Your task to perform on an android device: Open Android settings Image 0: 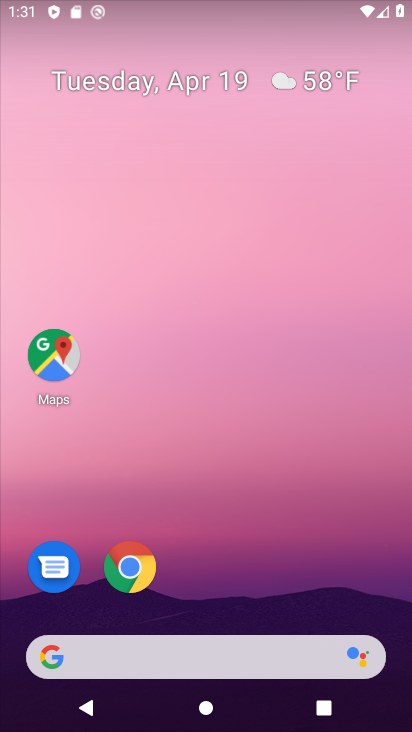
Step 0: drag from (395, 643) to (319, 99)
Your task to perform on an android device: Open Android settings Image 1: 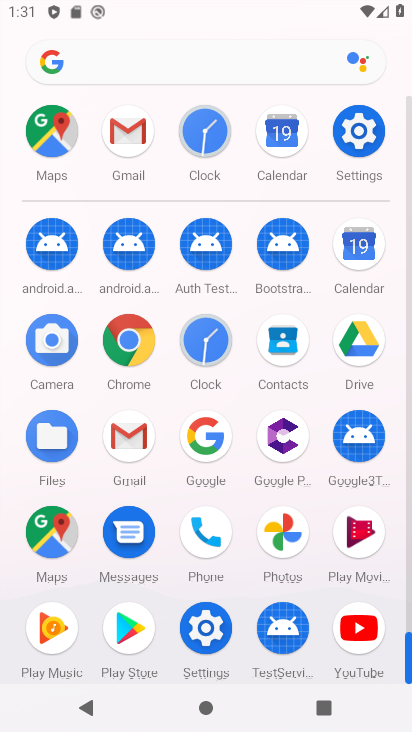
Step 1: click (202, 624)
Your task to perform on an android device: Open Android settings Image 2: 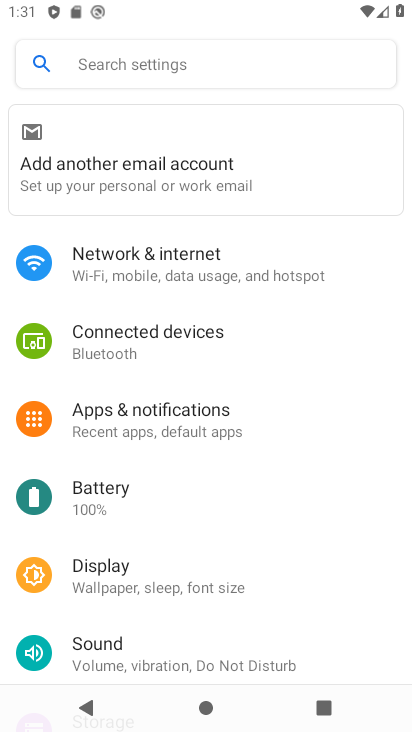
Step 2: drag from (296, 591) to (331, 288)
Your task to perform on an android device: Open Android settings Image 3: 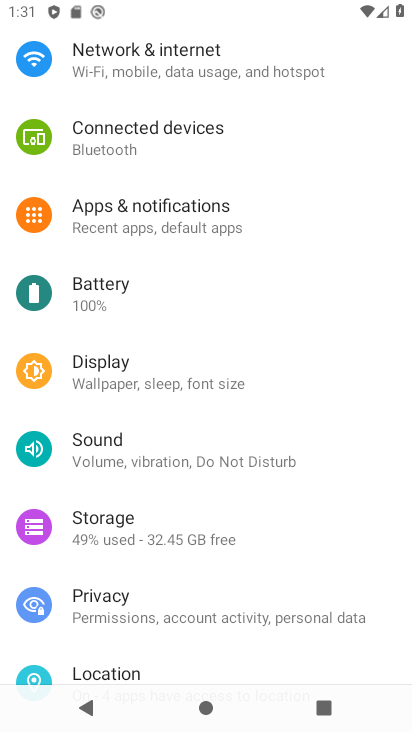
Step 3: drag from (340, 546) to (350, 166)
Your task to perform on an android device: Open Android settings Image 4: 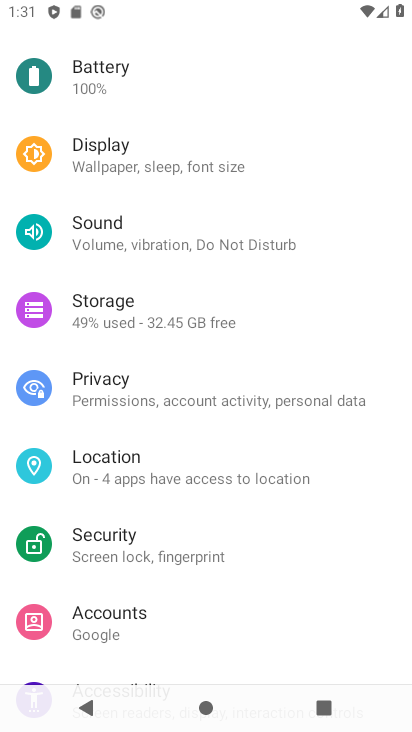
Step 4: drag from (347, 504) to (355, 219)
Your task to perform on an android device: Open Android settings Image 5: 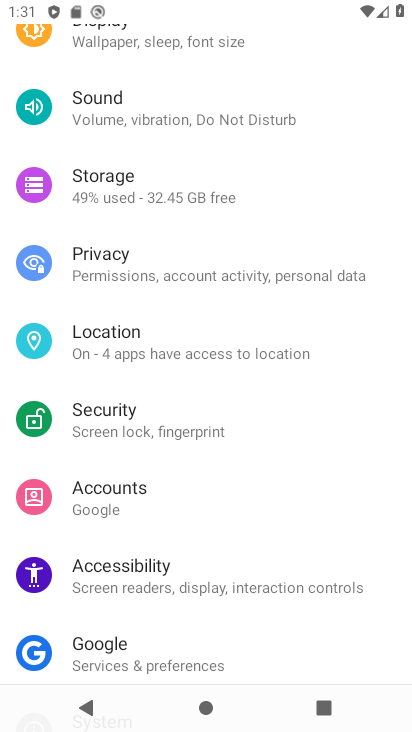
Step 5: drag from (308, 491) to (374, 207)
Your task to perform on an android device: Open Android settings Image 6: 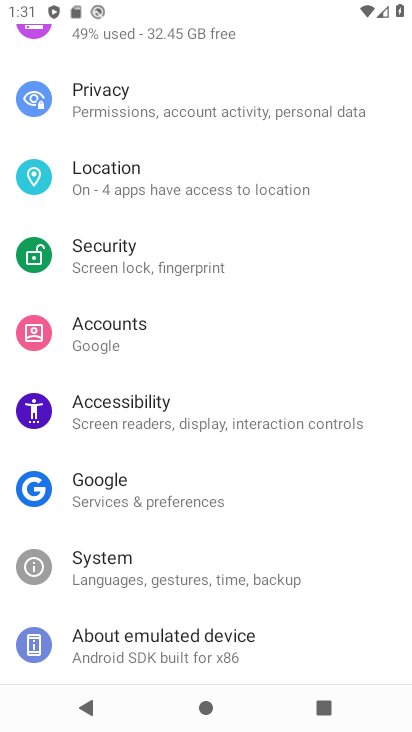
Step 6: click (101, 643)
Your task to perform on an android device: Open Android settings Image 7: 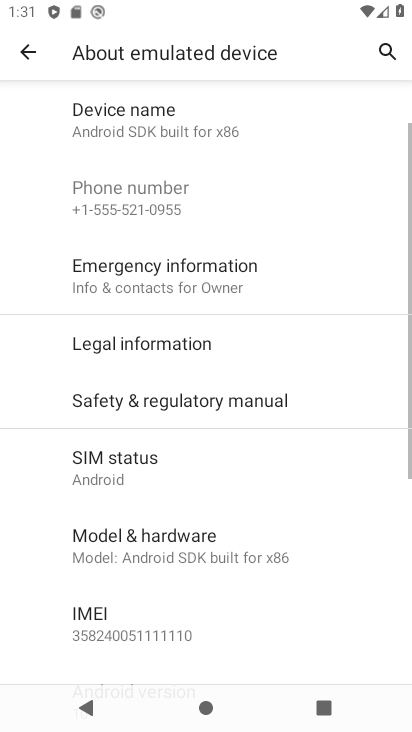
Step 7: drag from (319, 593) to (360, 262)
Your task to perform on an android device: Open Android settings Image 8: 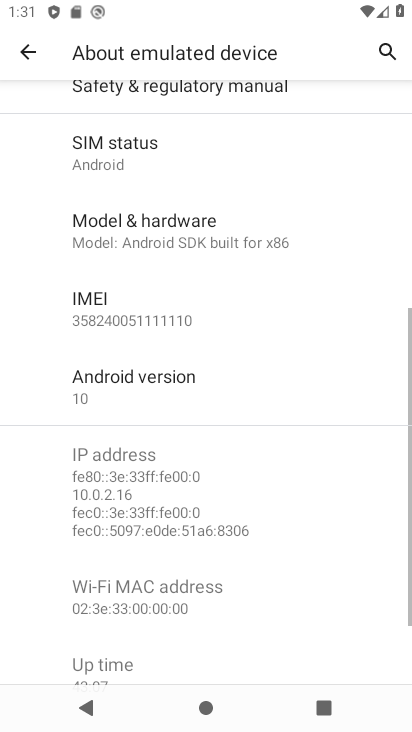
Step 8: click (119, 374)
Your task to perform on an android device: Open Android settings Image 9: 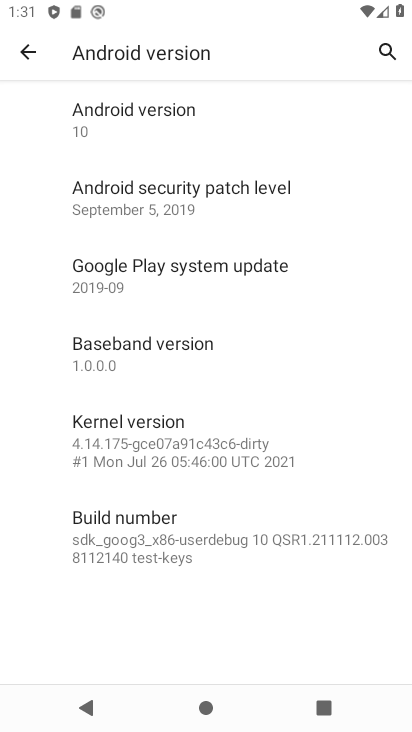
Step 9: task complete